Your task to perform on an android device: Open Yahoo.com Image 0: 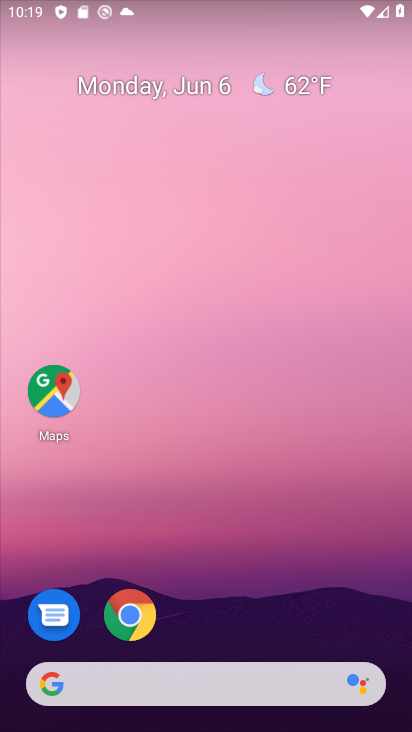
Step 0: click (132, 611)
Your task to perform on an android device: Open Yahoo.com Image 1: 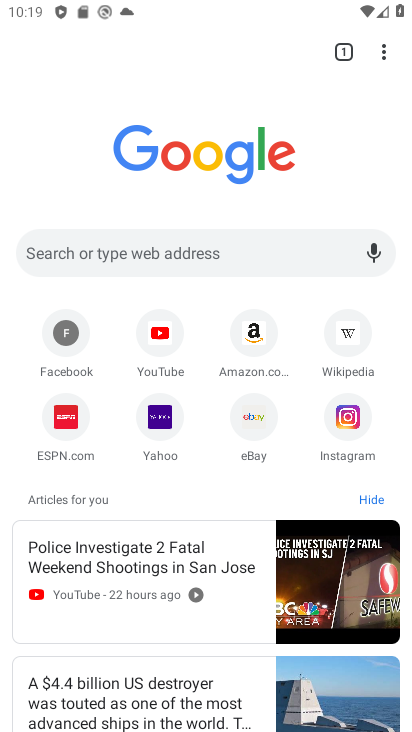
Step 1: click (153, 413)
Your task to perform on an android device: Open Yahoo.com Image 2: 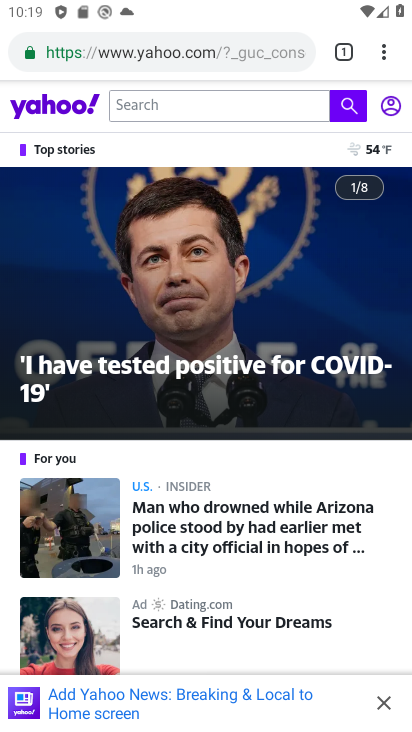
Step 2: task complete